Your task to perform on an android device: add a contact Image 0: 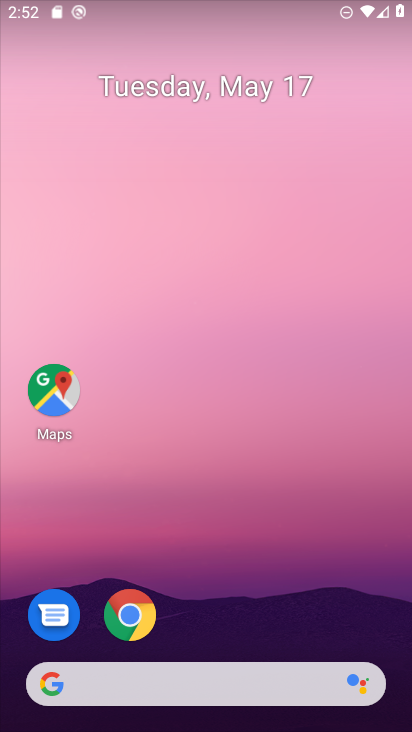
Step 0: drag from (235, 725) to (237, 238)
Your task to perform on an android device: add a contact Image 1: 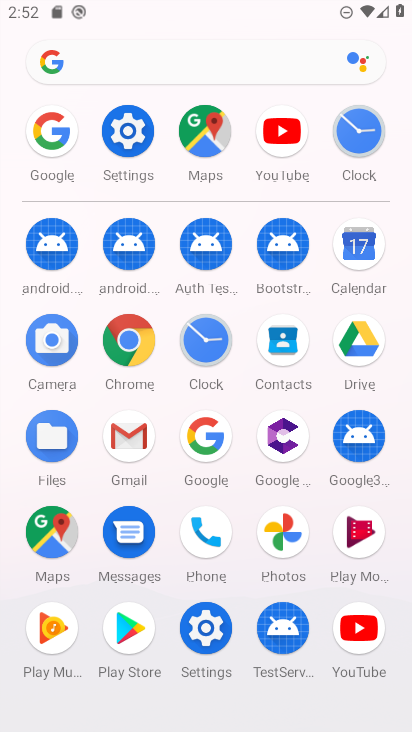
Step 1: click (280, 348)
Your task to perform on an android device: add a contact Image 2: 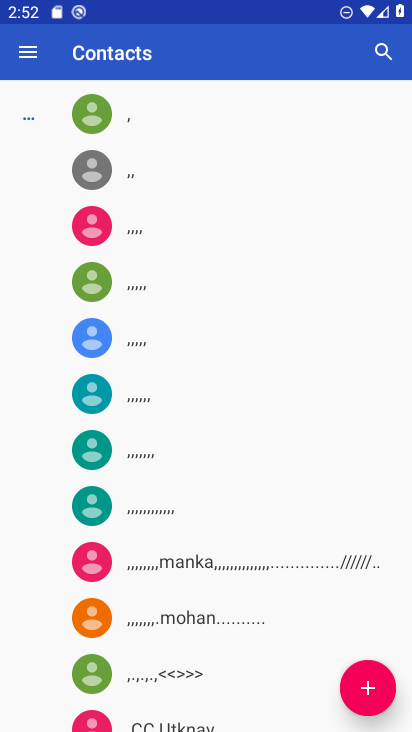
Step 2: click (370, 691)
Your task to perform on an android device: add a contact Image 3: 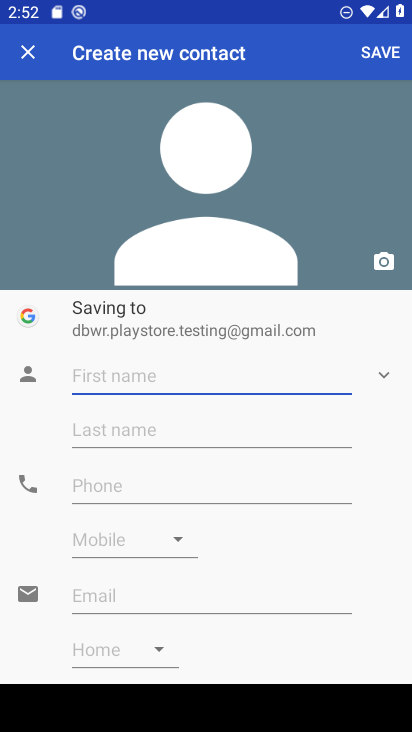
Step 3: type "nhikkkkkkk"
Your task to perform on an android device: add a contact Image 4: 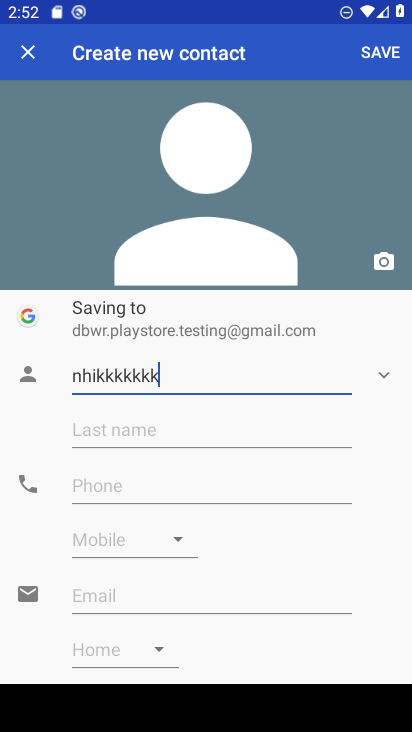
Step 4: type ""
Your task to perform on an android device: add a contact Image 5: 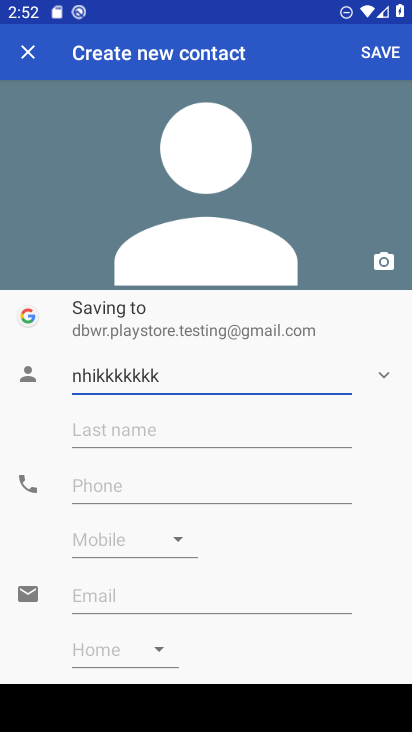
Step 5: click (101, 485)
Your task to perform on an android device: add a contact Image 6: 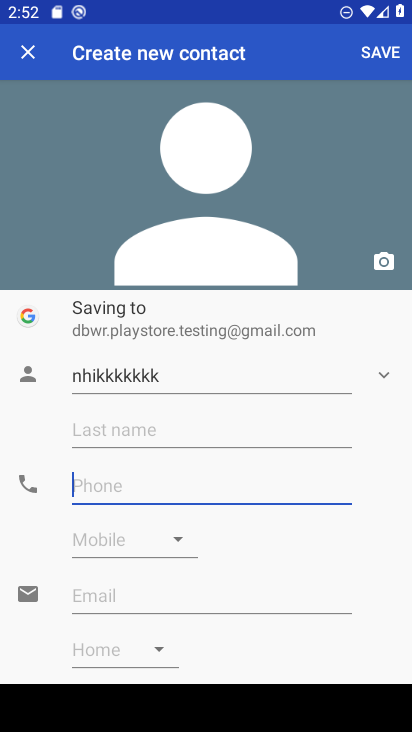
Step 6: type "09090909"
Your task to perform on an android device: add a contact Image 7: 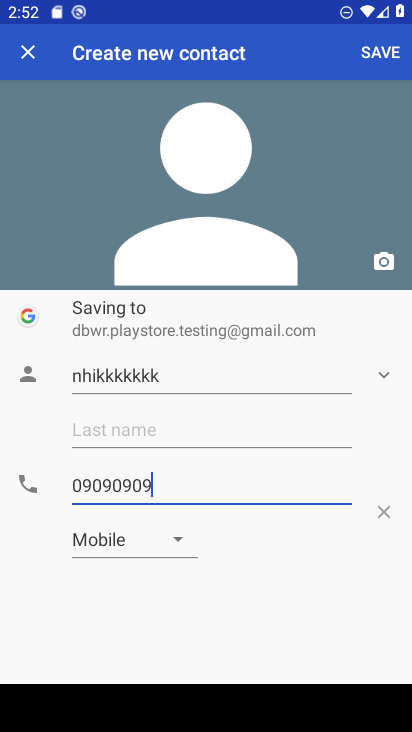
Step 7: type ""
Your task to perform on an android device: add a contact Image 8: 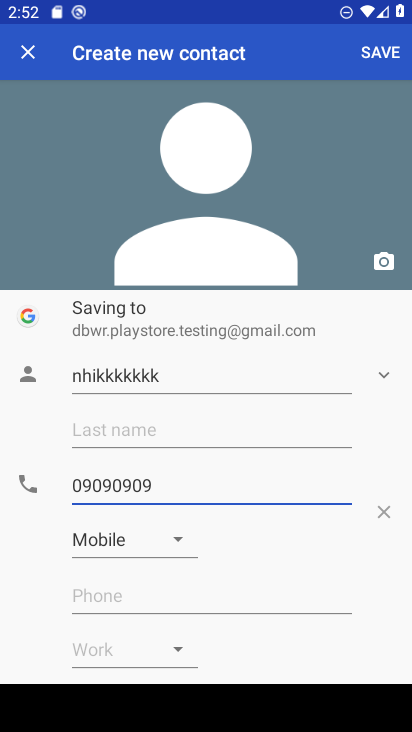
Step 8: click (383, 51)
Your task to perform on an android device: add a contact Image 9: 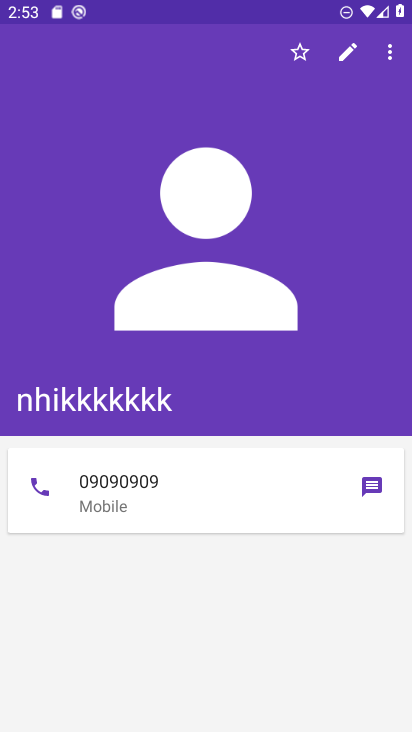
Step 9: task complete